Your task to perform on an android device: change your default location settings in chrome Image 0: 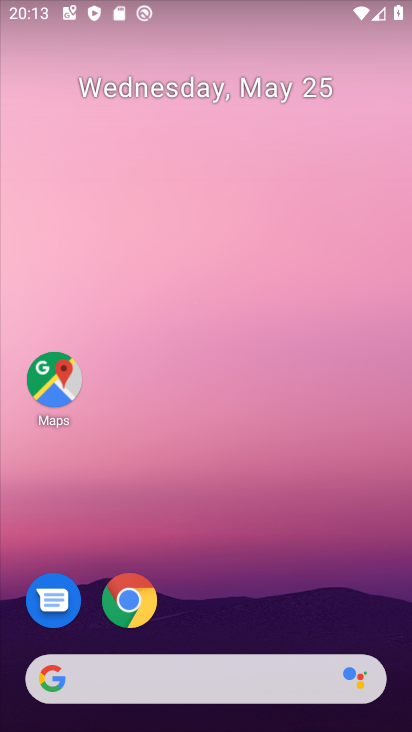
Step 0: drag from (351, 596) to (262, 175)
Your task to perform on an android device: change your default location settings in chrome Image 1: 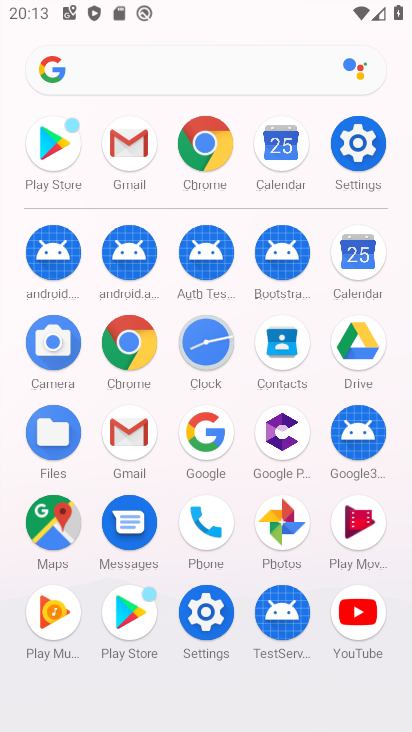
Step 1: click (133, 376)
Your task to perform on an android device: change your default location settings in chrome Image 2: 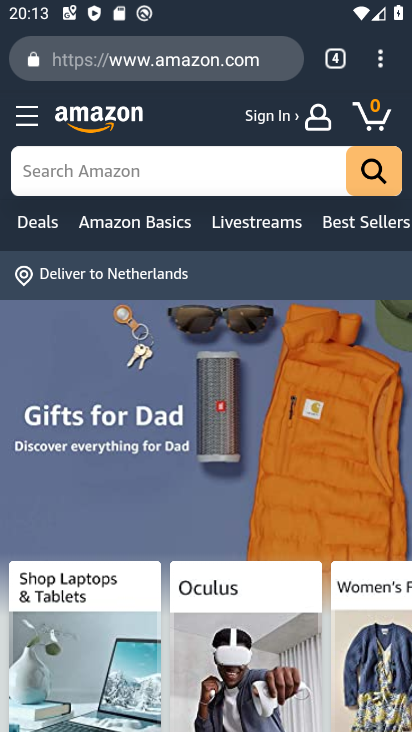
Step 2: drag from (382, 71) to (195, 628)
Your task to perform on an android device: change your default location settings in chrome Image 3: 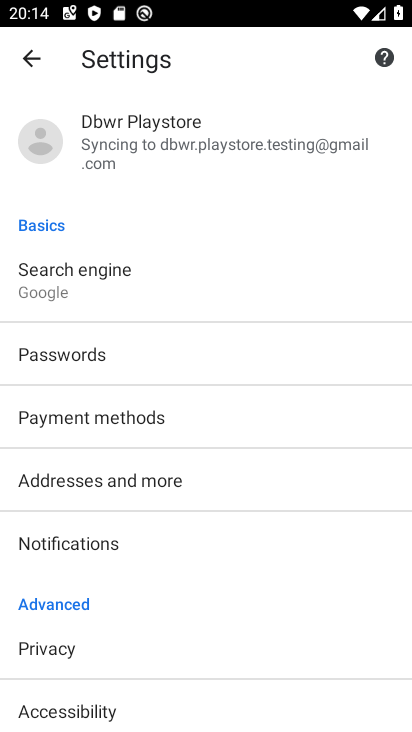
Step 3: drag from (204, 636) to (229, 245)
Your task to perform on an android device: change your default location settings in chrome Image 4: 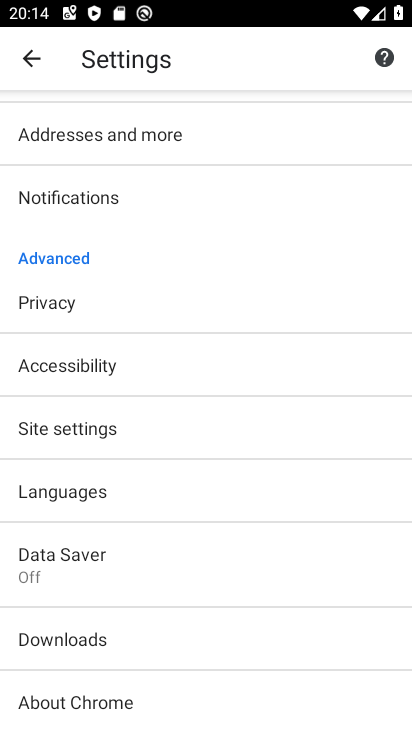
Step 4: click (152, 427)
Your task to perform on an android device: change your default location settings in chrome Image 5: 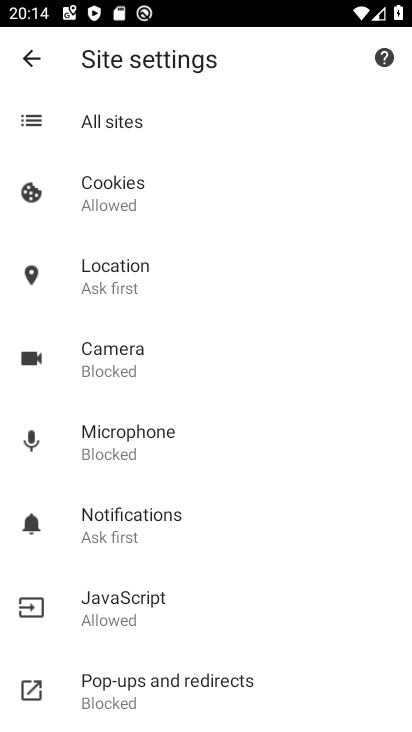
Step 5: click (144, 277)
Your task to perform on an android device: change your default location settings in chrome Image 6: 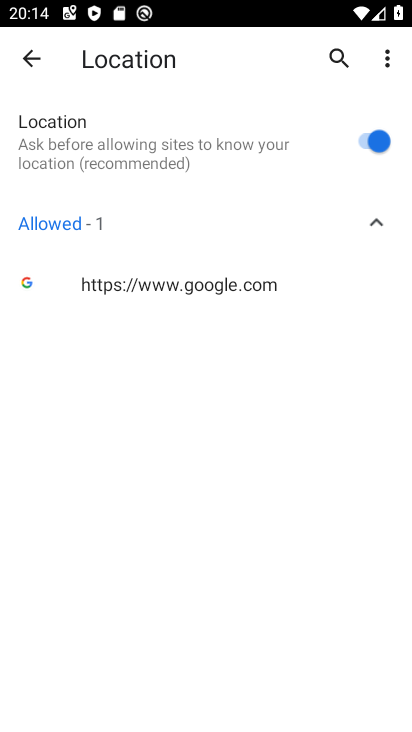
Step 6: click (249, 287)
Your task to perform on an android device: change your default location settings in chrome Image 7: 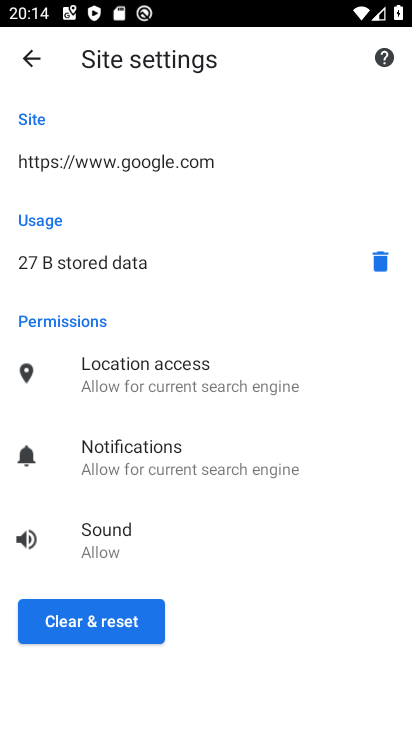
Step 7: click (167, 368)
Your task to perform on an android device: change your default location settings in chrome Image 8: 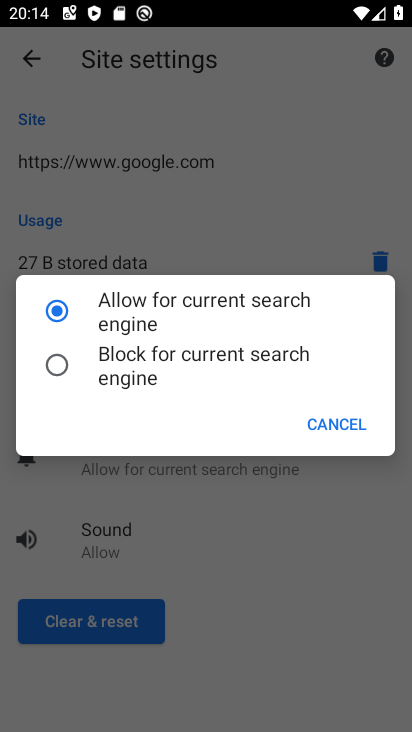
Step 8: click (116, 366)
Your task to perform on an android device: change your default location settings in chrome Image 9: 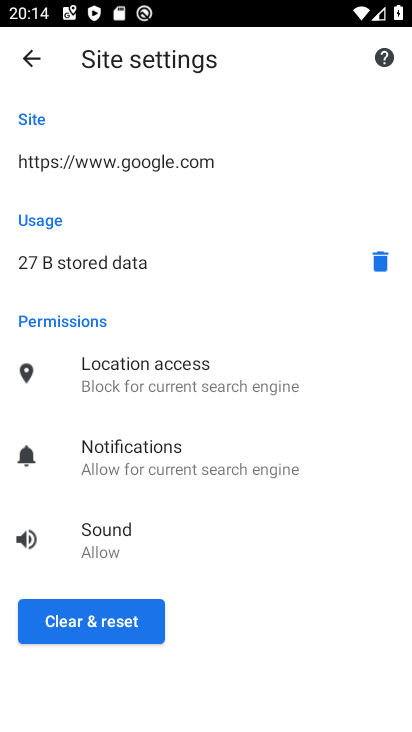
Step 9: task complete